Your task to perform on an android device: Search for vegetarian restaurants on Maps Image 0: 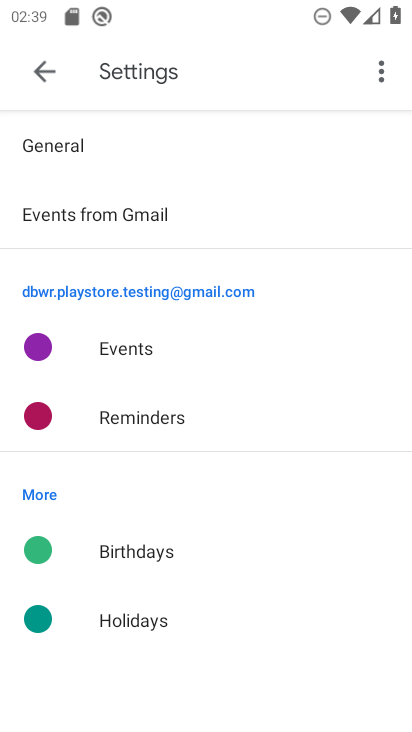
Step 0: press home button
Your task to perform on an android device: Search for vegetarian restaurants on Maps Image 1: 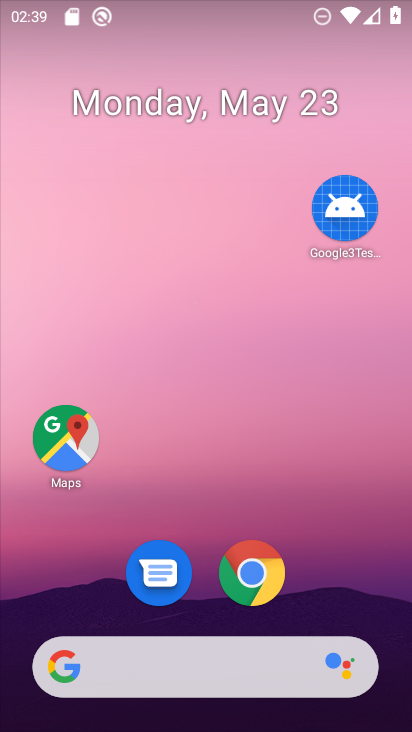
Step 1: click (55, 439)
Your task to perform on an android device: Search for vegetarian restaurants on Maps Image 2: 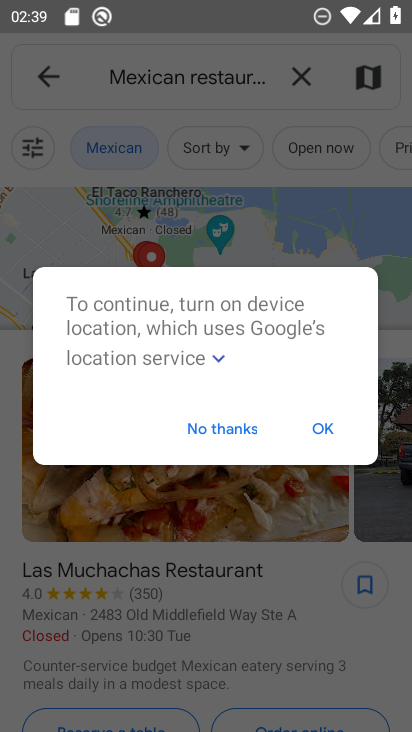
Step 2: click (183, 421)
Your task to perform on an android device: Search for vegetarian restaurants on Maps Image 3: 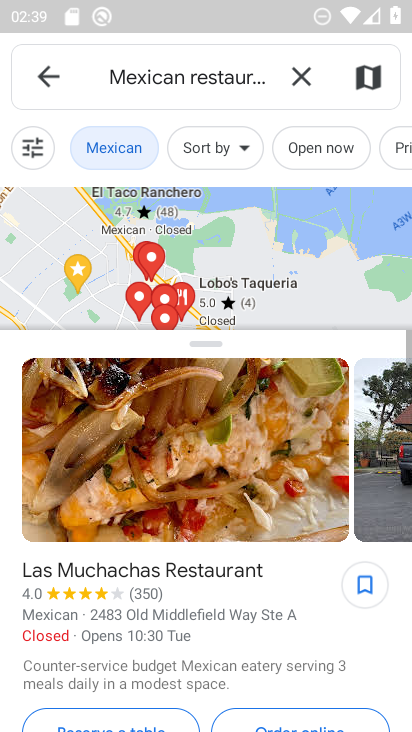
Step 3: click (242, 79)
Your task to perform on an android device: Search for vegetarian restaurants on Maps Image 4: 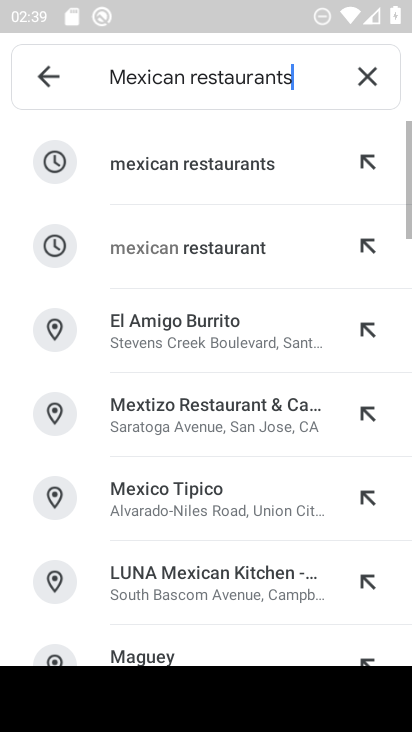
Step 4: click (376, 71)
Your task to perform on an android device: Search for vegetarian restaurants on Maps Image 5: 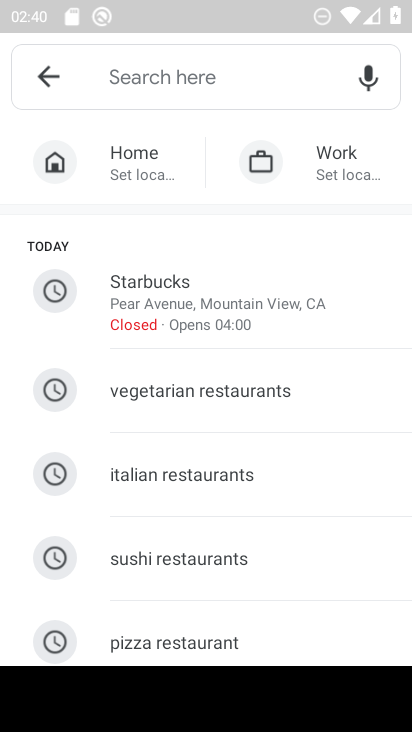
Step 5: click (294, 404)
Your task to perform on an android device: Search for vegetarian restaurants on Maps Image 6: 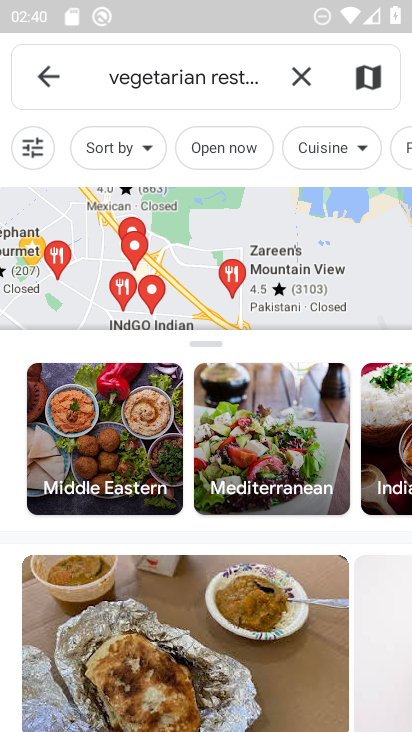
Step 6: task complete